Your task to perform on an android device: search for starred emails in the gmail app Image 0: 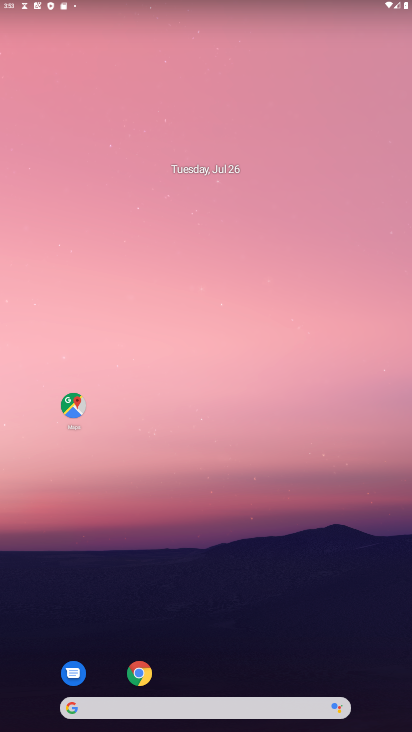
Step 0: drag from (205, 710) to (175, 152)
Your task to perform on an android device: search for starred emails in the gmail app Image 1: 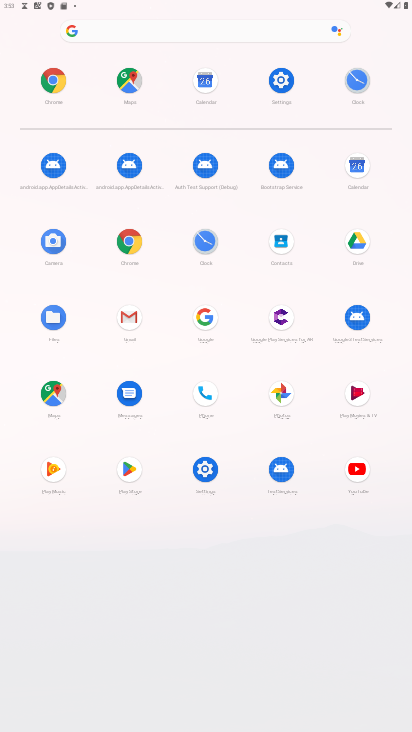
Step 1: click (130, 314)
Your task to perform on an android device: search for starred emails in the gmail app Image 2: 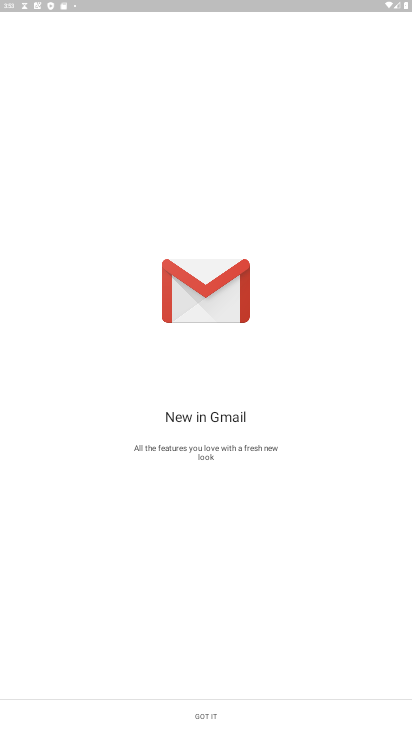
Step 2: click (206, 717)
Your task to perform on an android device: search for starred emails in the gmail app Image 3: 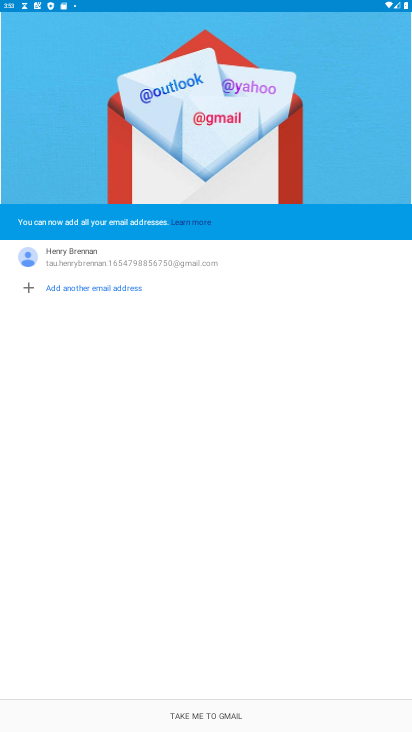
Step 3: click (208, 712)
Your task to perform on an android device: search for starred emails in the gmail app Image 4: 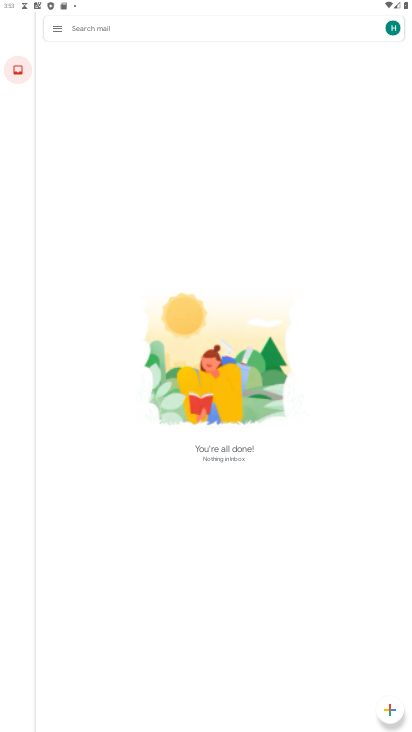
Step 4: click (59, 28)
Your task to perform on an android device: search for starred emails in the gmail app Image 5: 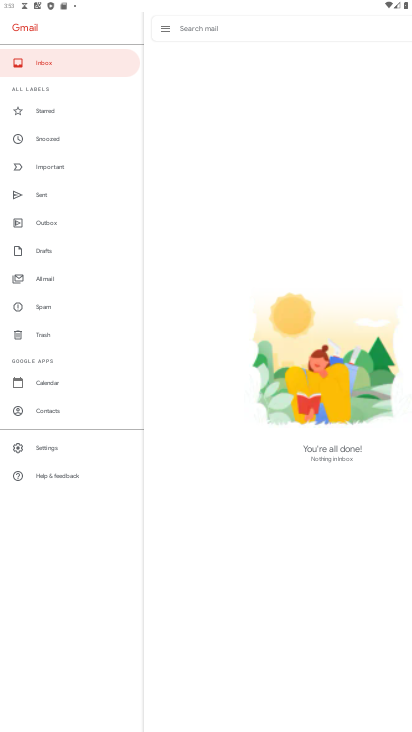
Step 5: click (51, 280)
Your task to perform on an android device: search for starred emails in the gmail app Image 6: 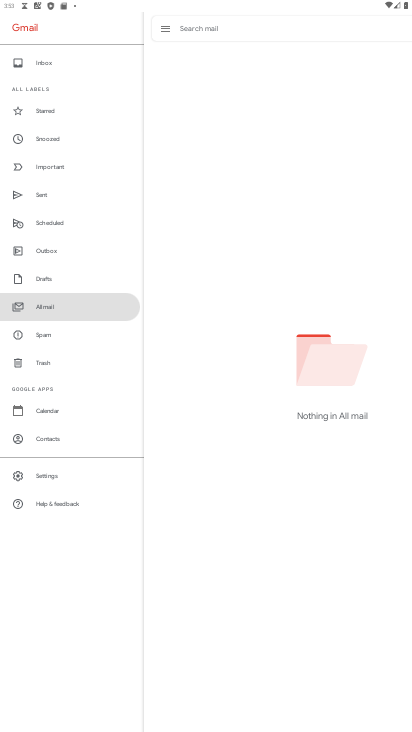
Step 6: click (45, 115)
Your task to perform on an android device: search for starred emails in the gmail app Image 7: 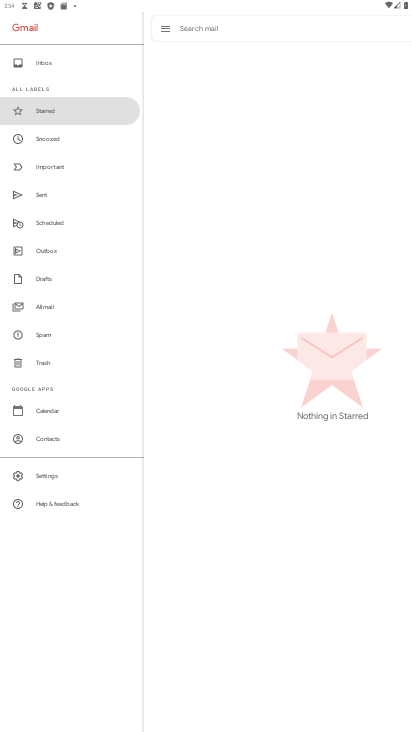
Step 7: task complete